Your task to perform on an android device: Clear all items from cart on bestbuy.com. Image 0: 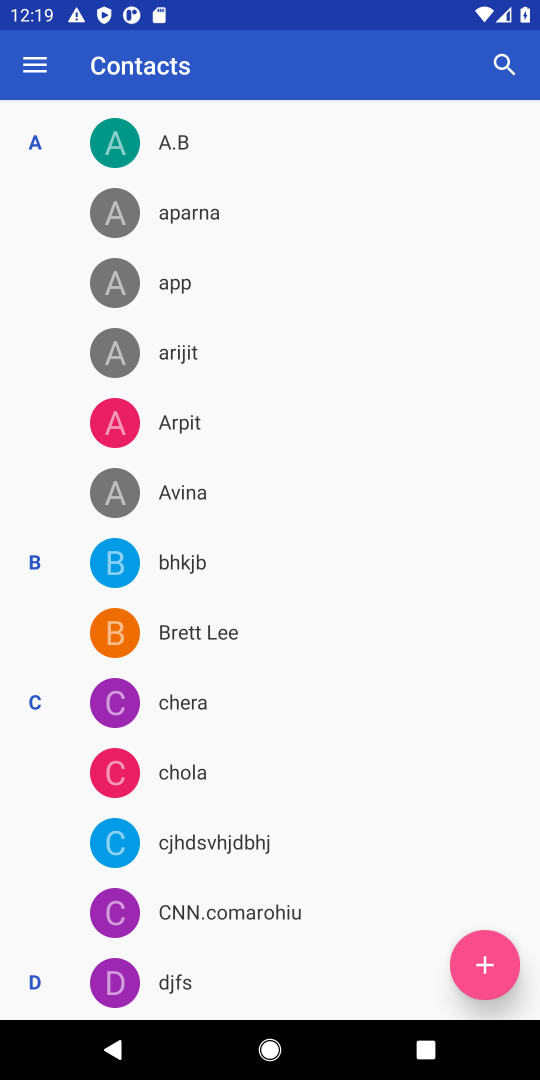
Step 0: press home button
Your task to perform on an android device: Clear all items from cart on bestbuy.com. Image 1: 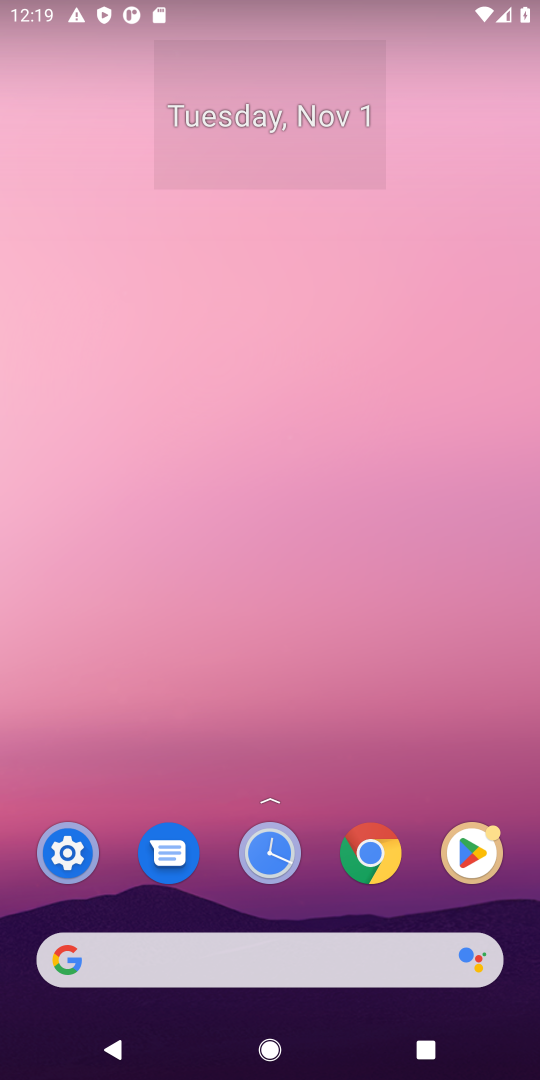
Step 1: click (305, 948)
Your task to perform on an android device: Clear all items from cart on bestbuy.com. Image 2: 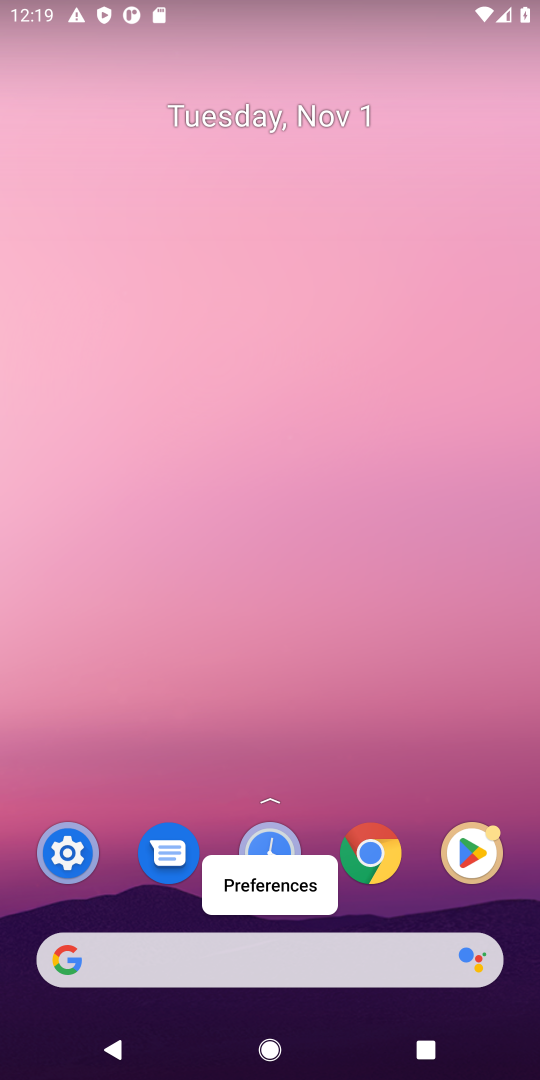
Step 2: click (303, 950)
Your task to perform on an android device: Clear all items from cart on bestbuy.com. Image 3: 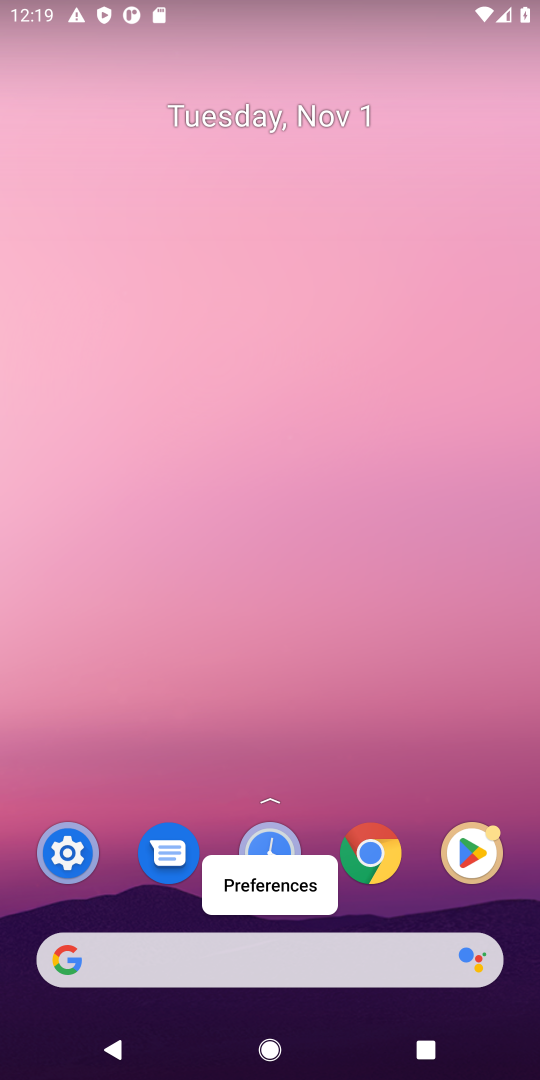
Step 3: click (303, 950)
Your task to perform on an android device: Clear all items from cart on bestbuy.com. Image 4: 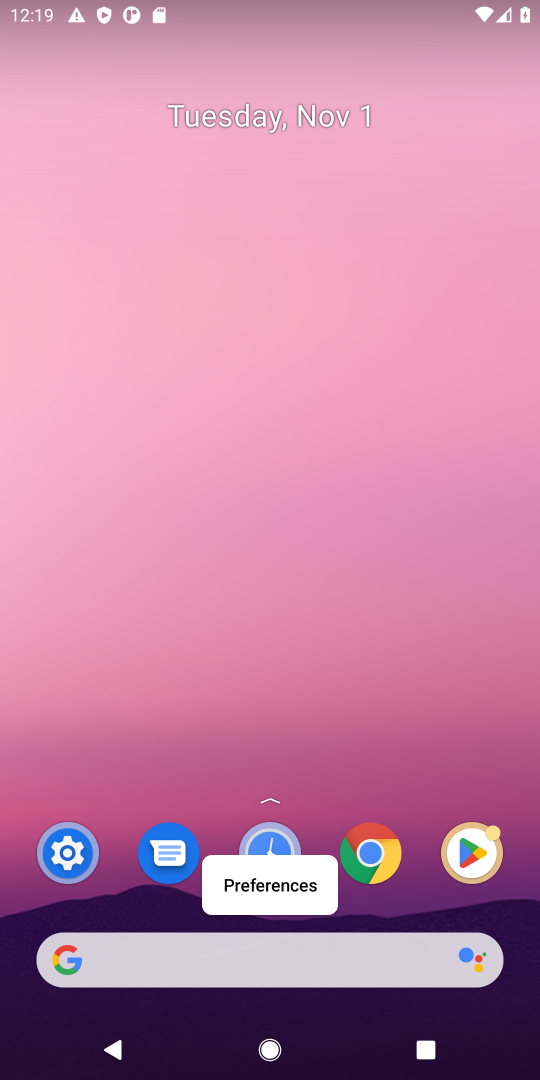
Step 4: click (303, 950)
Your task to perform on an android device: Clear all items from cart on bestbuy.com. Image 5: 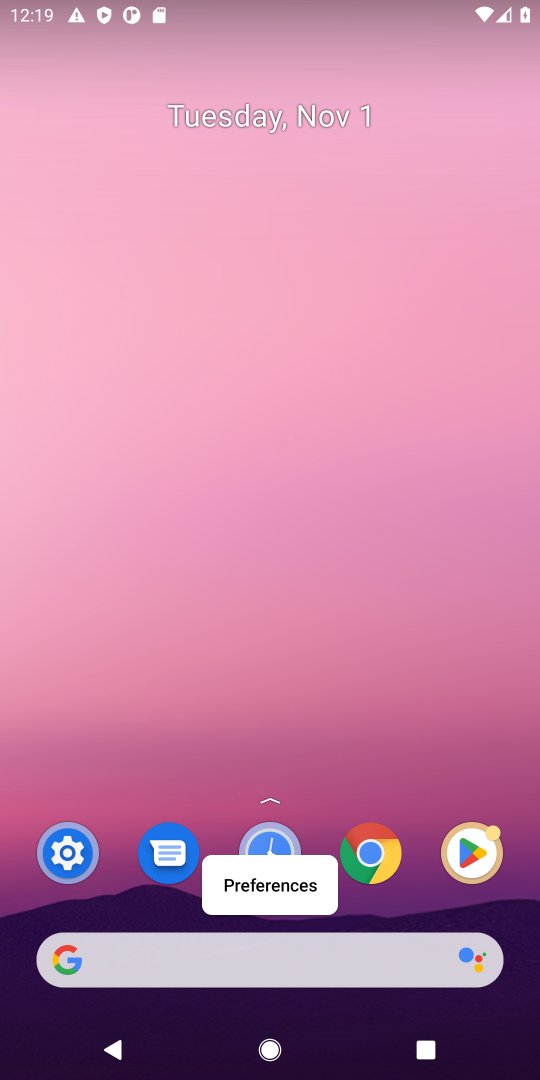
Step 5: click (303, 950)
Your task to perform on an android device: Clear all items from cart on bestbuy.com. Image 6: 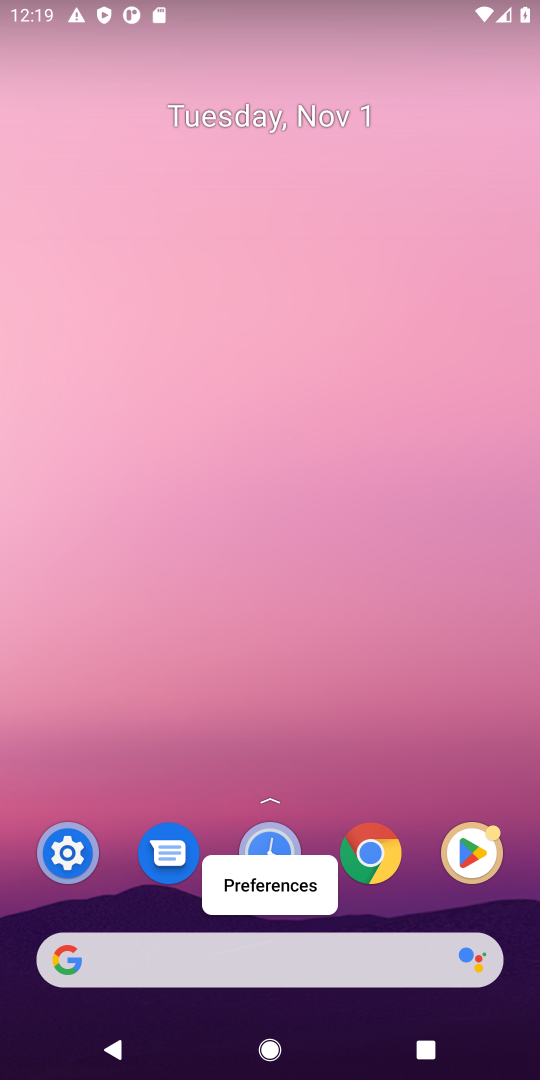
Step 6: click (173, 976)
Your task to perform on an android device: Clear all items from cart on bestbuy.com. Image 7: 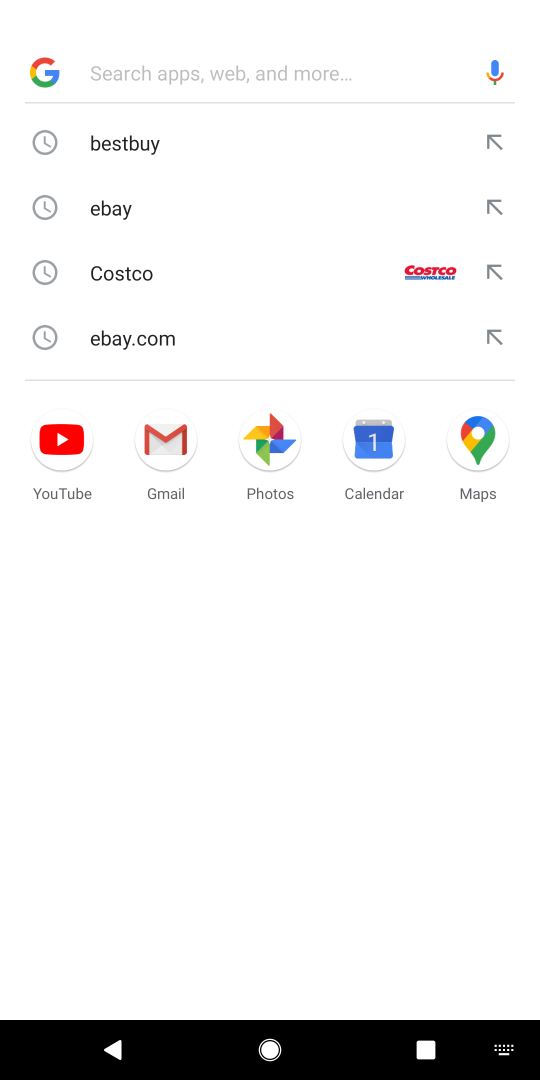
Step 7: click (166, 972)
Your task to perform on an android device: Clear all items from cart on bestbuy.com. Image 8: 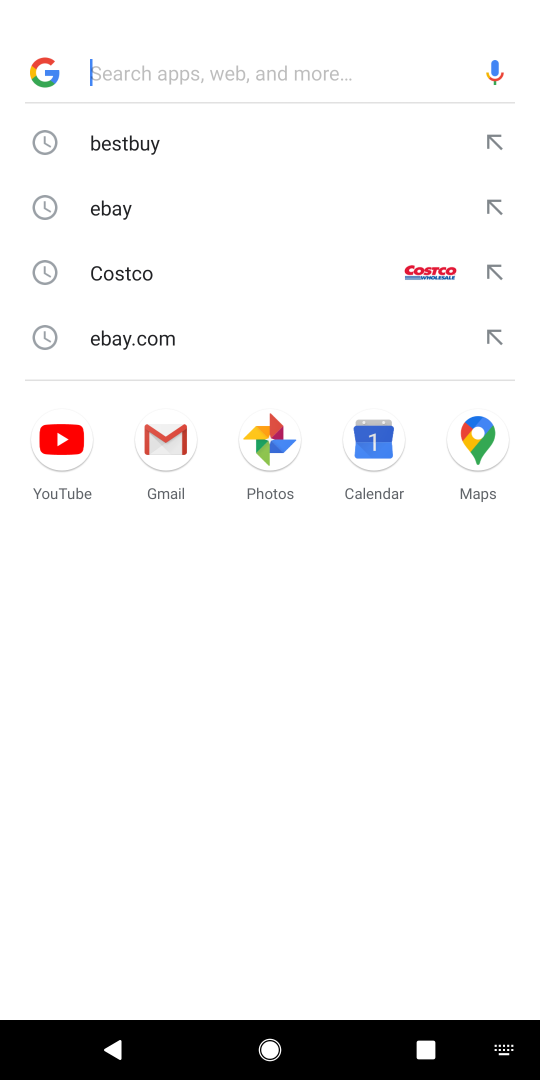
Step 8: type "bestbuy.com"
Your task to perform on an android device: Clear all items from cart on bestbuy.com. Image 9: 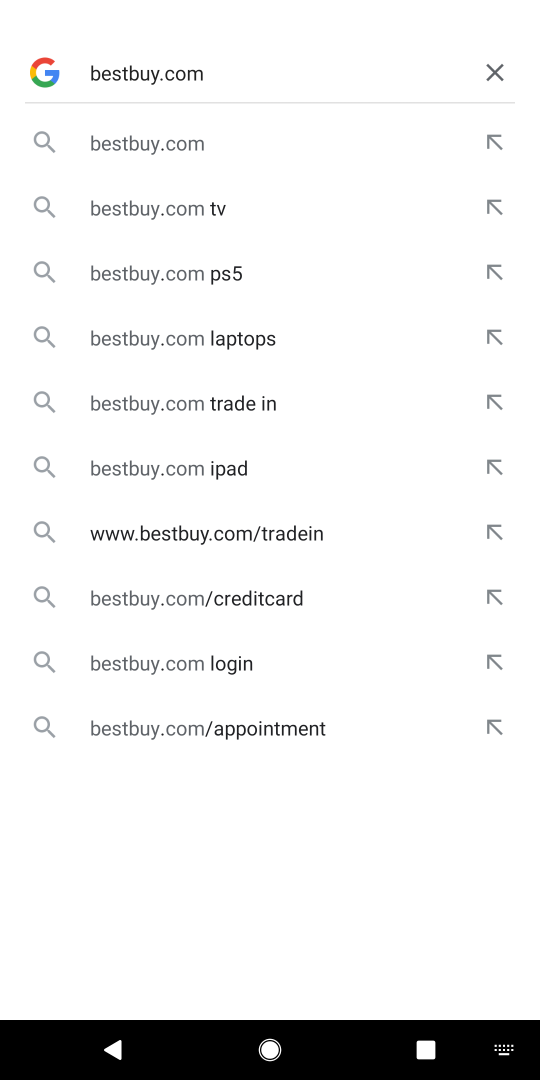
Step 9: type ""
Your task to perform on an android device: Clear all items from cart on bestbuy.com. Image 10: 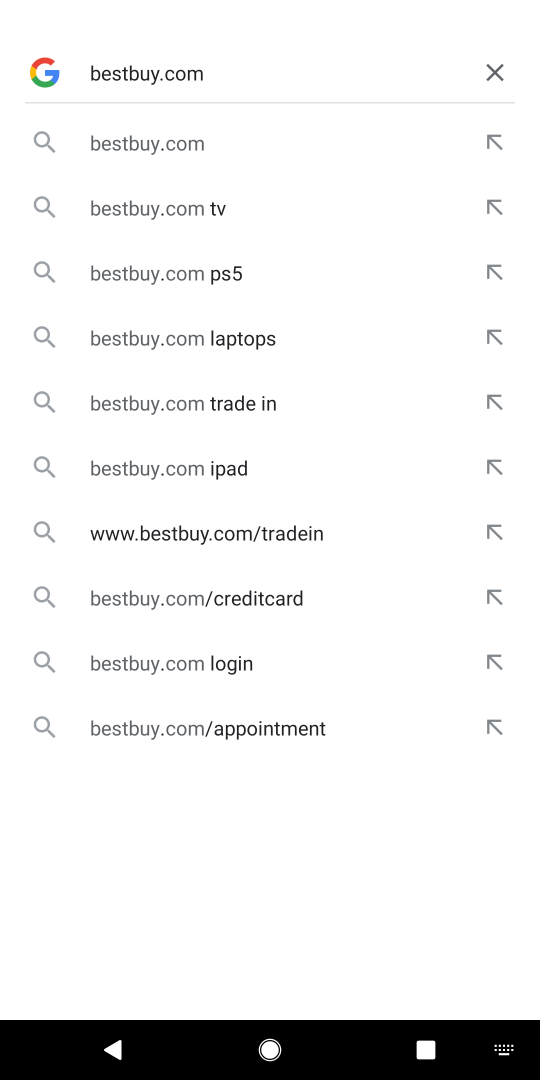
Step 10: press enter
Your task to perform on an android device: Clear all items from cart on bestbuy.com. Image 11: 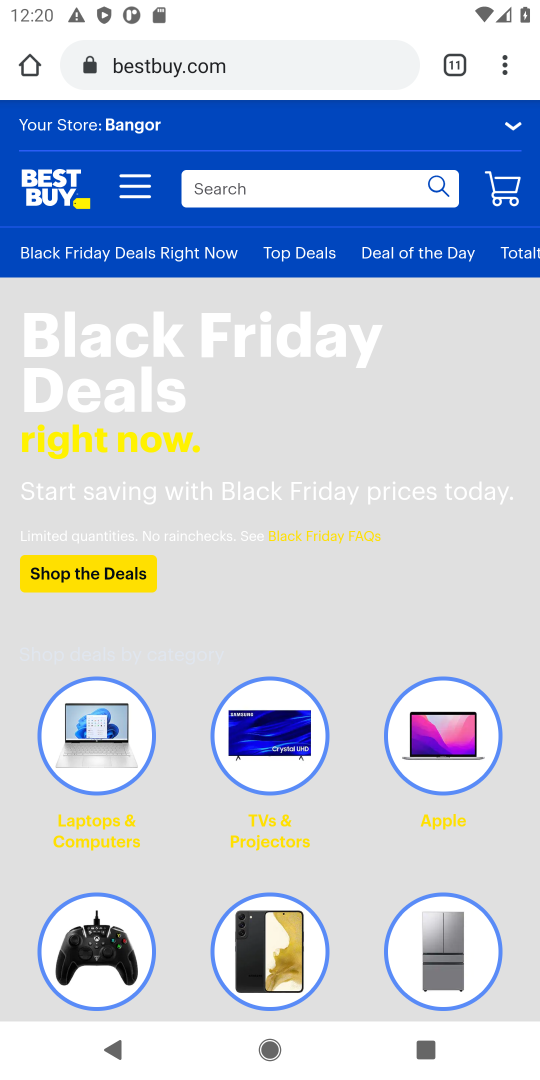
Step 11: click (511, 189)
Your task to perform on an android device: Clear all items from cart on bestbuy.com. Image 12: 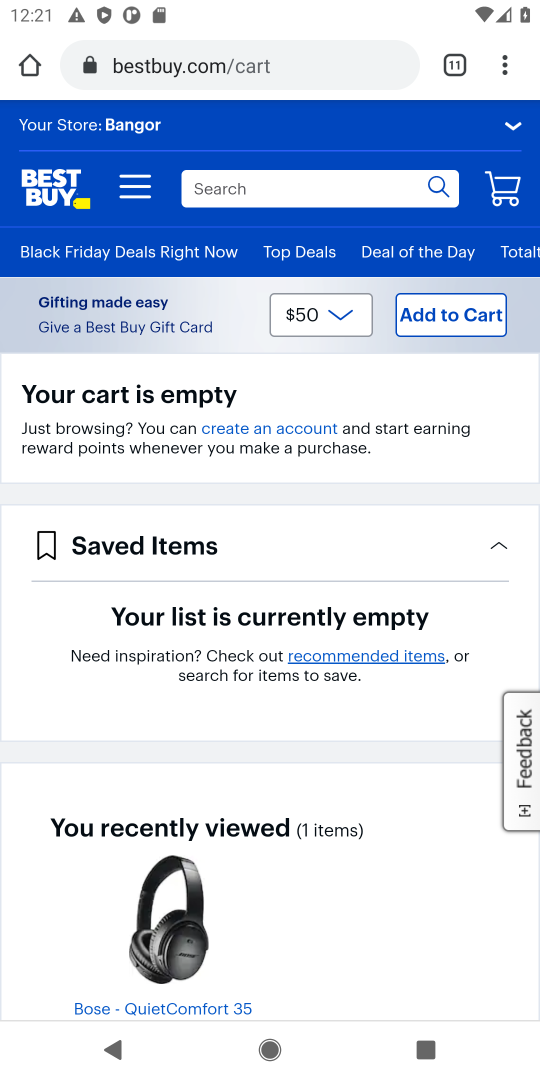
Step 12: click (266, 201)
Your task to perform on an android device: Clear all items from cart on bestbuy.com. Image 13: 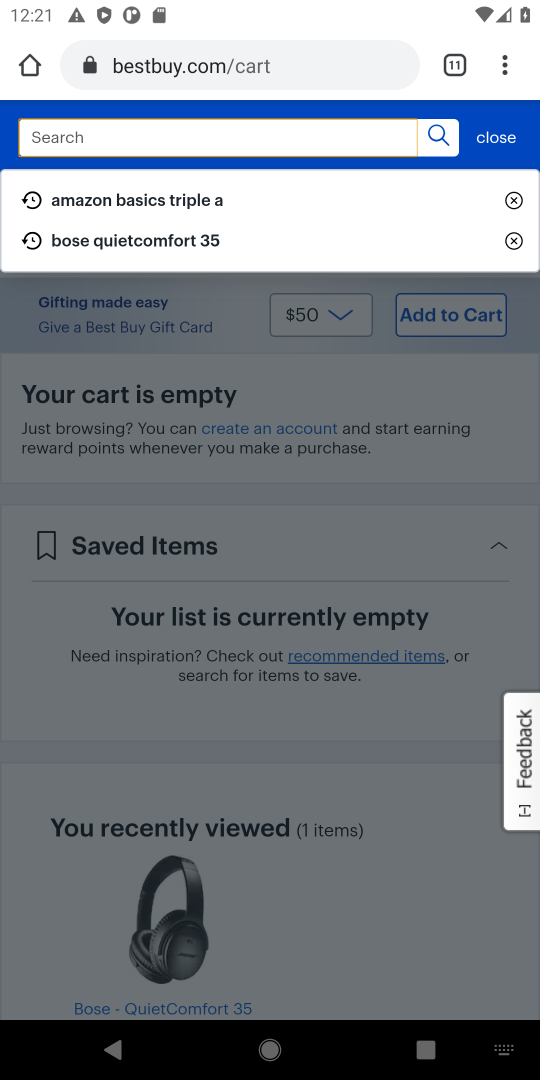
Step 13: task complete